Your task to perform on an android device: Clear all items from cart on bestbuy.com. Search for "asus rog" on bestbuy.com, select the first entry, and add it to the cart. Image 0: 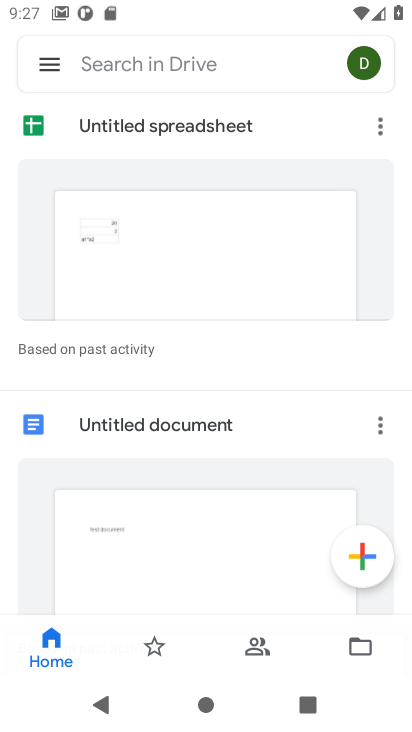
Step 0: press home button
Your task to perform on an android device: Clear all items from cart on bestbuy.com. Search for "asus rog" on bestbuy.com, select the first entry, and add it to the cart. Image 1: 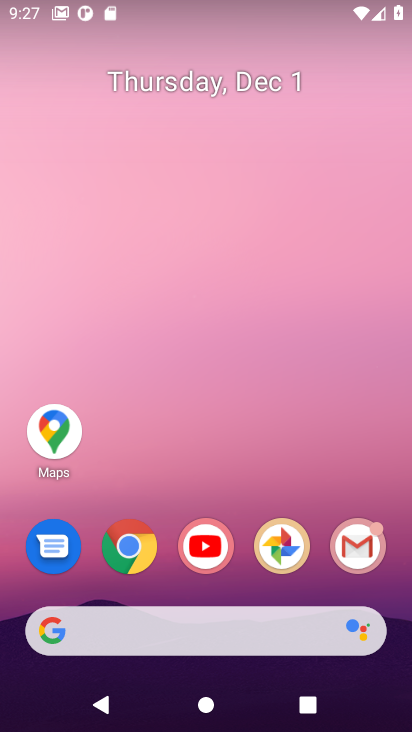
Step 1: click (129, 554)
Your task to perform on an android device: Clear all items from cart on bestbuy.com. Search for "asus rog" on bestbuy.com, select the first entry, and add it to the cart. Image 2: 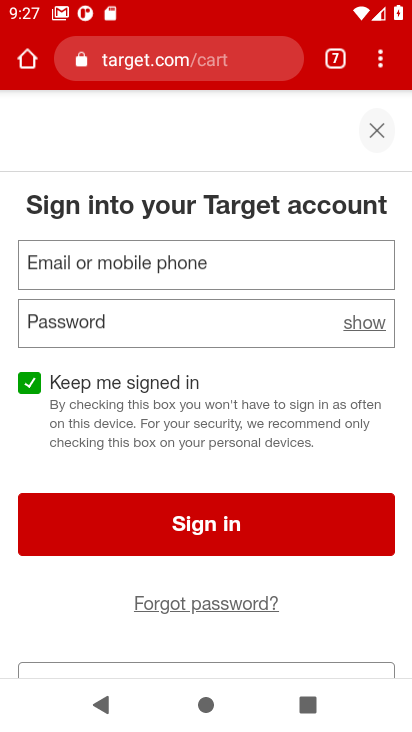
Step 2: click (167, 56)
Your task to perform on an android device: Clear all items from cart on bestbuy.com. Search for "asus rog" on bestbuy.com, select the first entry, and add it to the cart. Image 3: 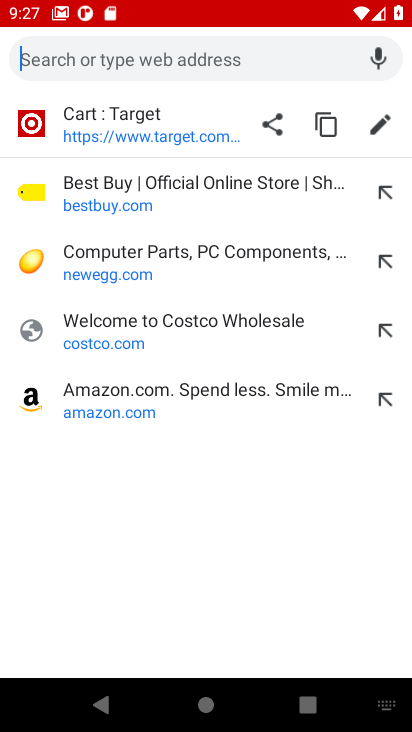
Step 3: click (101, 196)
Your task to perform on an android device: Clear all items from cart on bestbuy.com. Search for "asus rog" on bestbuy.com, select the first entry, and add it to the cart. Image 4: 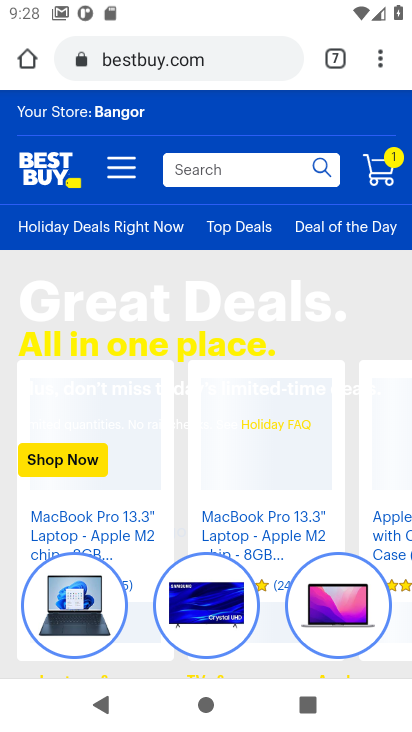
Step 4: click (374, 163)
Your task to perform on an android device: Clear all items from cart on bestbuy.com. Search for "asus rog" on bestbuy.com, select the first entry, and add it to the cart. Image 5: 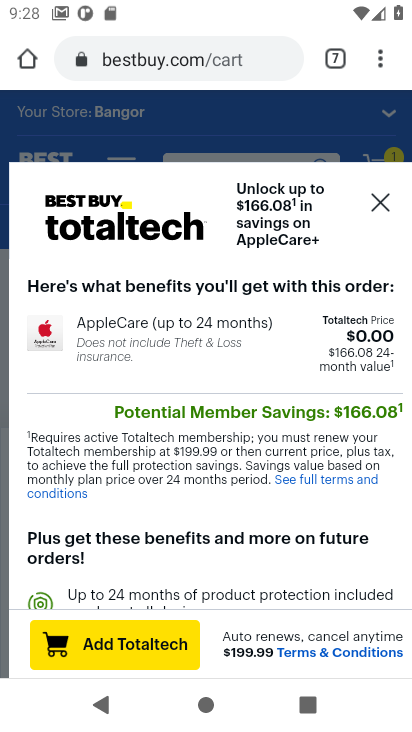
Step 5: click (379, 203)
Your task to perform on an android device: Clear all items from cart on bestbuy.com. Search for "asus rog" on bestbuy.com, select the first entry, and add it to the cart. Image 6: 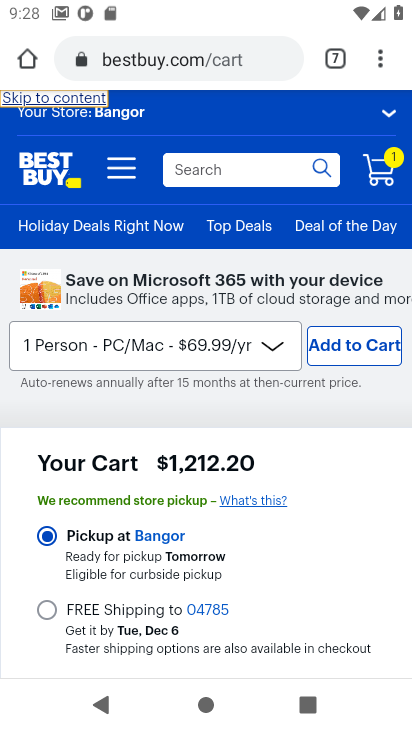
Step 6: drag from (162, 530) to (160, 218)
Your task to perform on an android device: Clear all items from cart on bestbuy.com. Search for "asus rog" on bestbuy.com, select the first entry, and add it to the cart. Image 7: 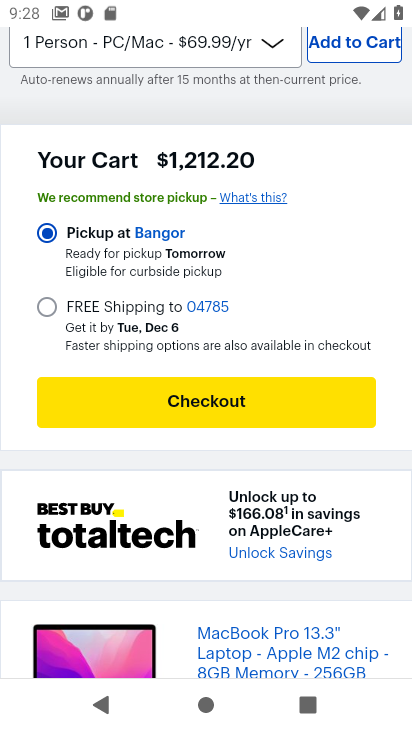
Step 7: drag from (166, 431) to (159, 165)
Your task to perform on an android device: Clear all items from cart on bestbuy.com. Search for "asus rog" on bestbuy.com, select the first entry, and add it to the cart. Image 8: 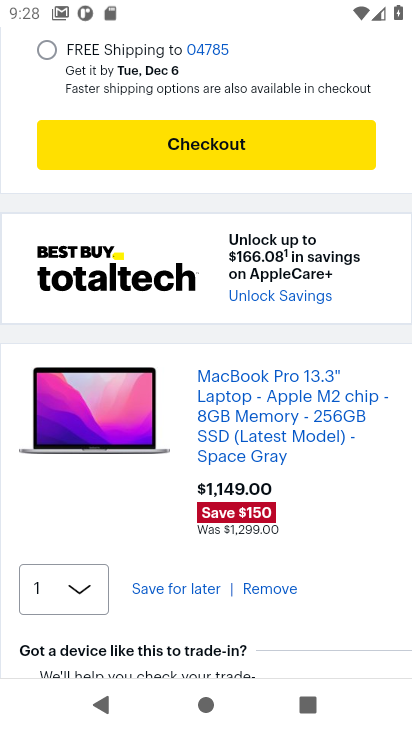
Step 8: click (264, 592)
Your task to perform on an android device: Clear all items from cart on bestbuy.com. Search for "asus rog" on bestbuy.com, select the first entry, and add it to the cart. Image 9: 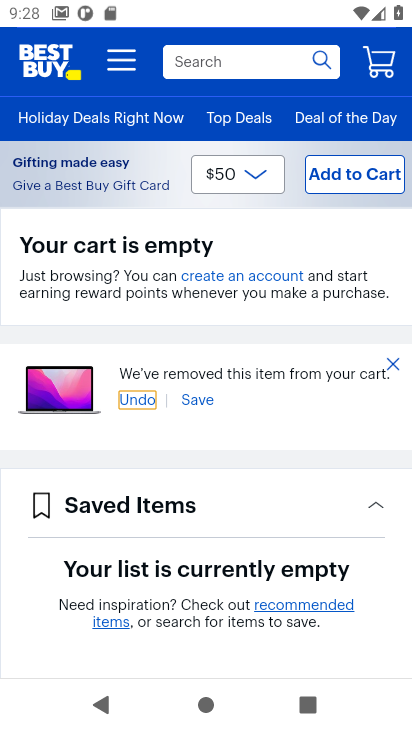
Step 9: drag from (219, 589) to (185, 239)
Your task to perform on an android device: Clear all items from cart on bestbuy.com. Search for "asus rog" on bestbuy.com, select the first entry, and add it to the cart. Image 10: 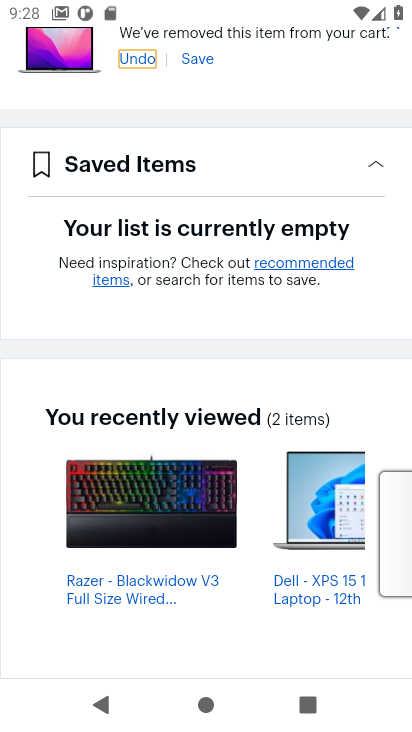
Step 10: drag from (187, 518) to (177, 214)
Your task to perform on an android device: Clear all items from cart on bestbuy.com. Search for "asus rog" on bestbuy.com, select the first entry, and add it to the cart. Image 11: 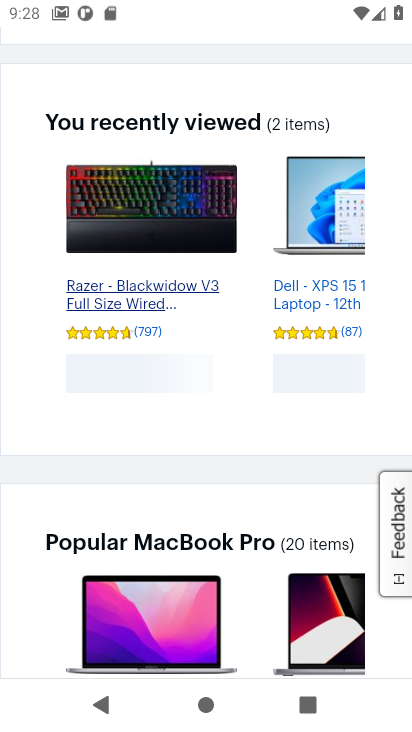
Step 11: drag from (199, 267) to (199, 667)
Your task to perform on an android device: Clear all items from cart on bestbuy.com. Search for "asus rog" on bestbuy.com, select the first entry, and add it to the cart. Image 12: 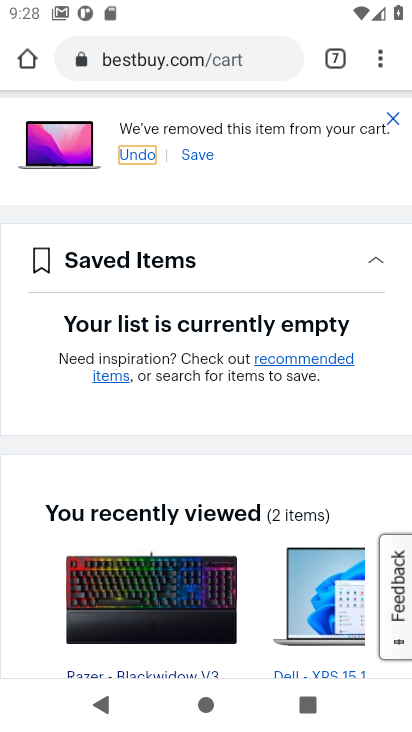
Step 12: drag from (163, 372) to (138, 640)
Your task to perform on an android device: Clear all items from cart on bestbuy.com. Search for "asus rog" on bestbuy.com, select the first entry, and add it to the cart. Image 13: 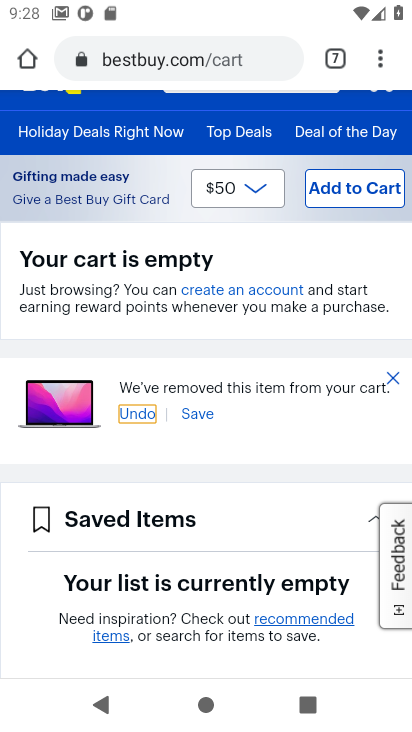
Step 13: drag from (162, 280) to (150, 422)
Your task to perform on an android device: Clear all items from cart on bestbuy.com. Search for "asus rog" on bestbuy.com, select the first entry, and add it to the cart. Image 14: 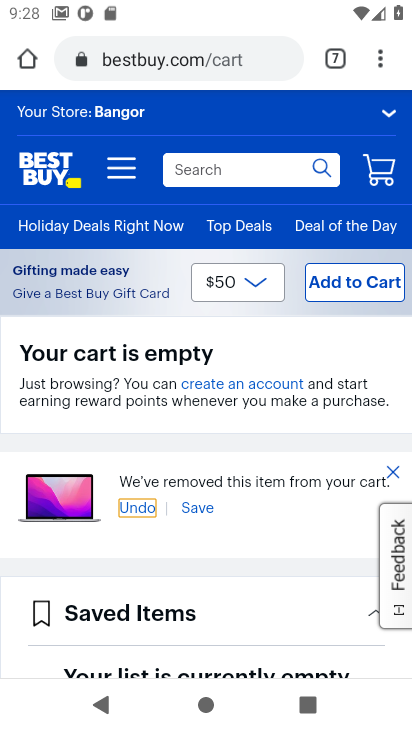
Step 14: click (195, 177)
Your task to perform on an android device: Clear all items from cart on bestbuy.com. Search for "asus rog" on bestbuy.com, select the first entry, and add it to the cart. Image 15: 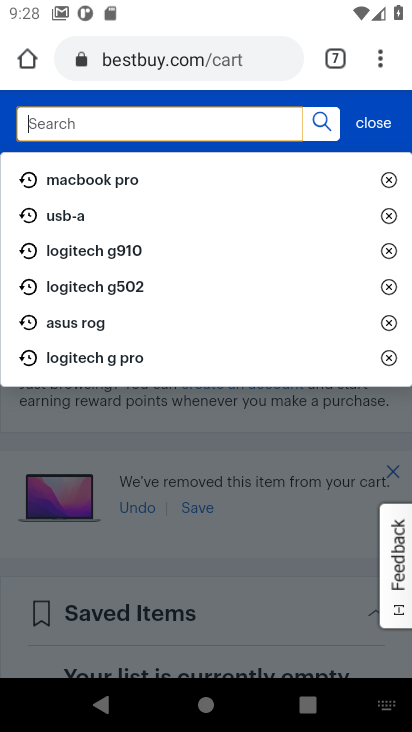
Step 15: type "asus rog"
Your task to perform on an android device: Clear all items from cart on bestbuy.com. Search for "asus rog" on bestbuy.com, select the first entry, and add it to the cart. Image 16: 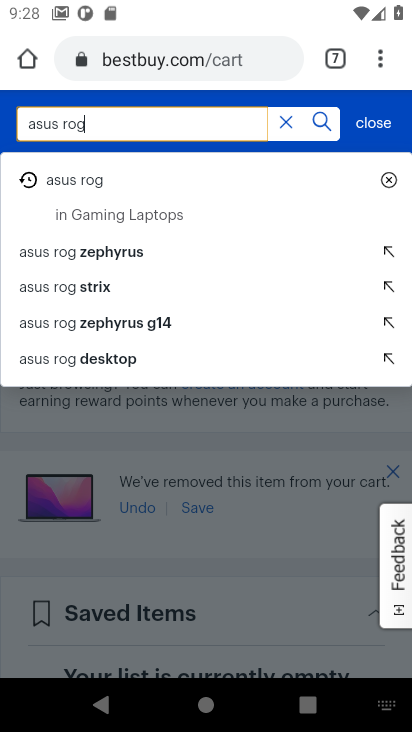
Step 16: click (76, 187)
Your task to perform on an android device: Clear all items from cart on bestbuy.com. Search for "asus rog" on bestbuy.com, select the first entry, and add it to the cart. Image 17: 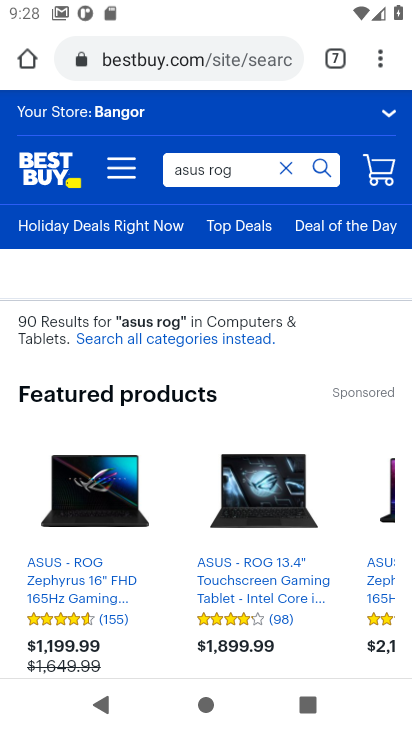
Step 17: drag from (132, 541) to (127, 187)
Your task to perform on an android device: Clear all items from cart on bestbuy.com. Search for "asus rog" on bestbuy.com, select the first entry, and add it to the cart. Image 18: 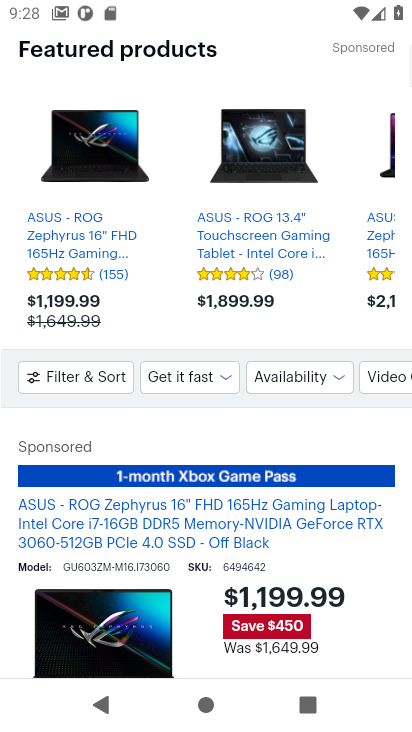
Step 18: drag from (124, 445) to (123, 253)
Your task to perform on an android device: Clear all items from cart on bestbuy.com. Search for "asus rog" on bestbuy.com, select the first entry, and add it to the cart. Image 19: 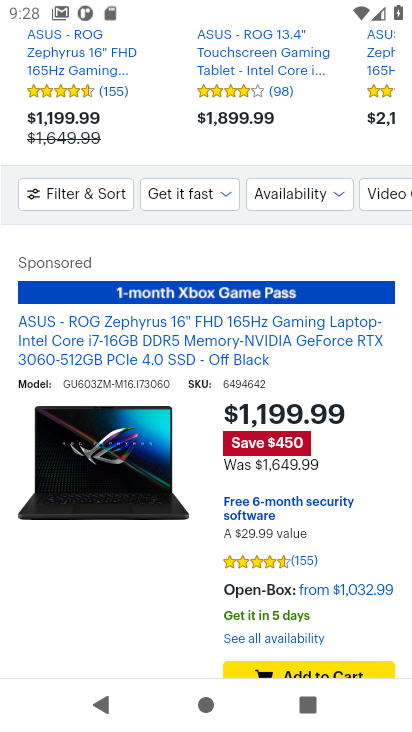
Step 19: drag from (309, 615) to (294, 509)
Your task to perform on an android device: Clear all items from cart on bestbuy.com. Search for "asus rog" on bestbuy.com, select the first entry, and add it to the cart. Image 20: 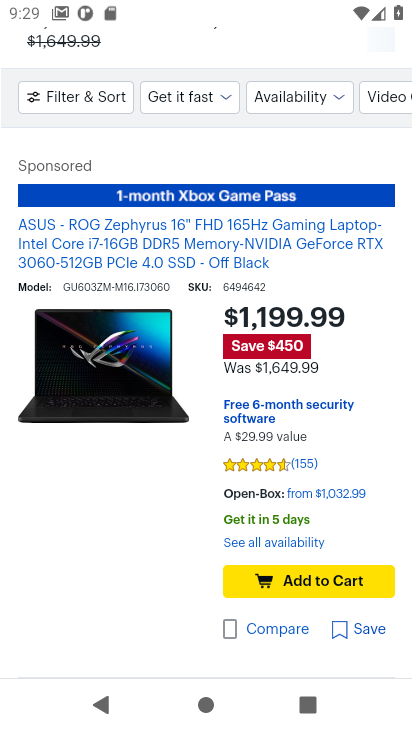
Step 20: click (300, 581)
Your task to perform on an android device: Clear all items from cart on bestbuy.com. Search for "asus rog" on bestbuy.com, select the first entry, and add it to the cart. Image 21: 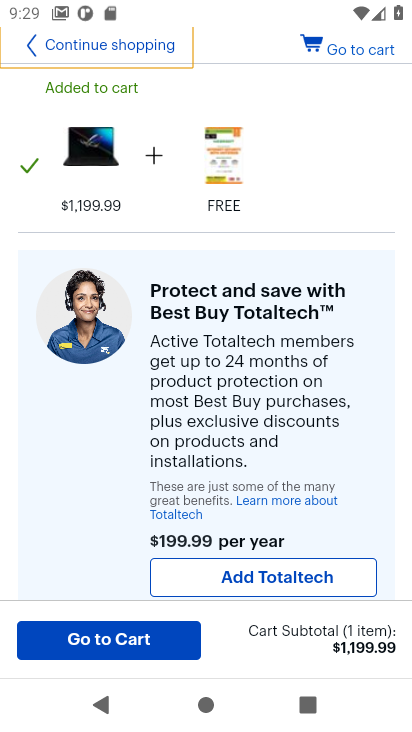
Step 21: click (352, 49)
Your task to perform on an android device: Clear all items from cart on bestbuy.com. Search for "asus rog" on bestbuy.com, select the first entry, and add it to the cart. Image 22: 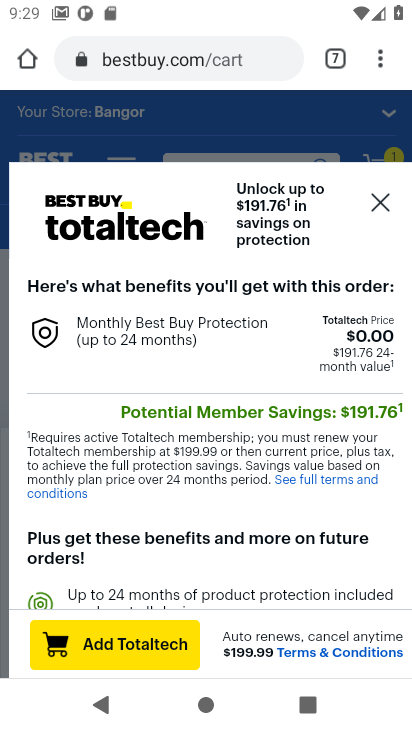
Step 22: click (382, 195)
Your task to perform on an android device: Clear all items from cart on bestbuy.com. Search for "asus rog" on bestbuy.com, select the first entry, and add it to the cart. Image 23: 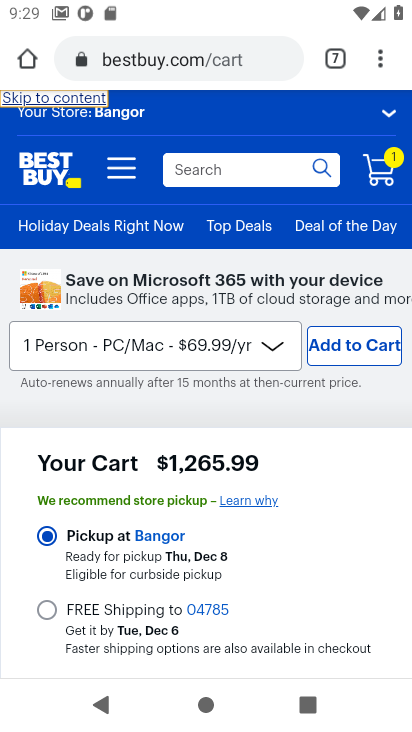
Step 23: task complete